Your task to perform on an android device: What's the weather going to be this weekend? Image 0: 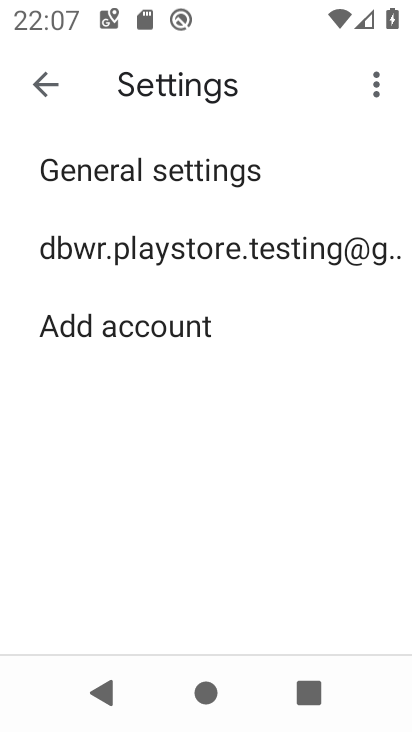
Step 0: press home button
Your task to perform on an android device: What's the weather going to be this weekend? Image 1: 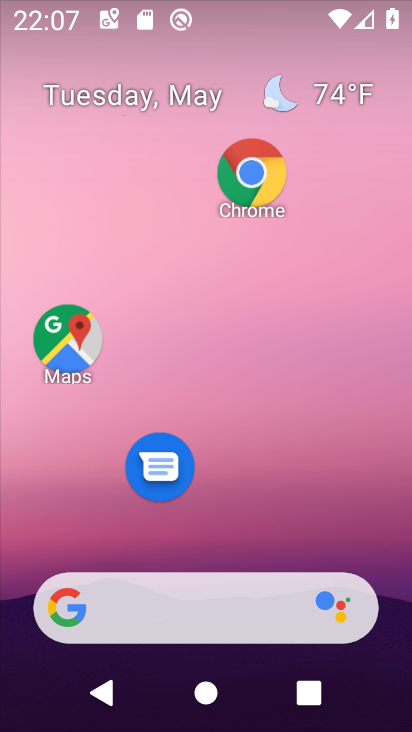
Step 1: drag from (338, 528) to (364, 127)
Your task to perform on an android device: What's the weather going to be this weekend? Image 2: 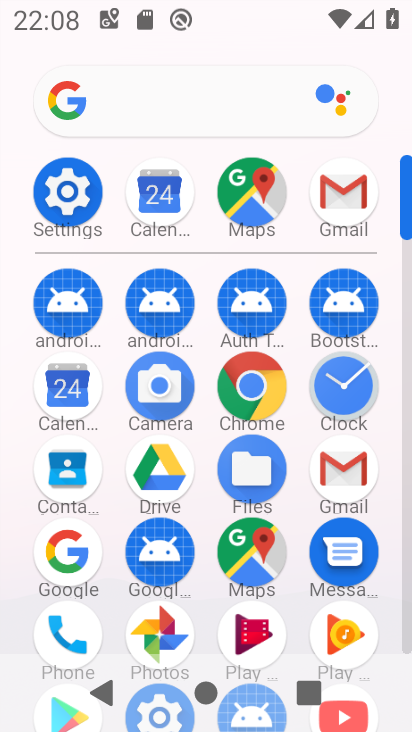
Step 2: click (241, 399)
Your task to perform on an android device: What's the weather going to be this weekend? Image 3: 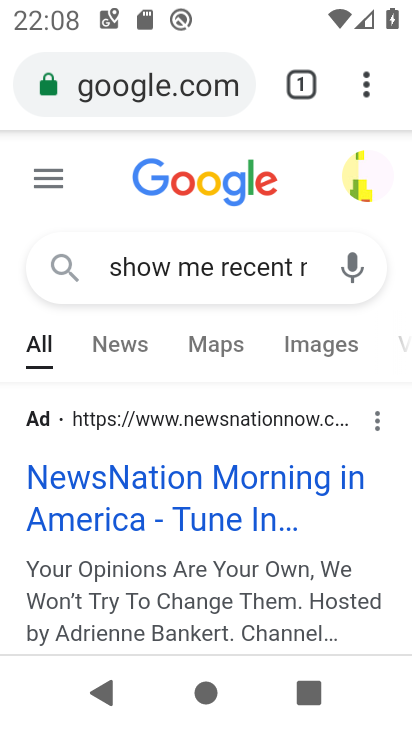
Step 3: press home button
Your task to perform on an android device: What's the weather going to be this weekend? Image 4: 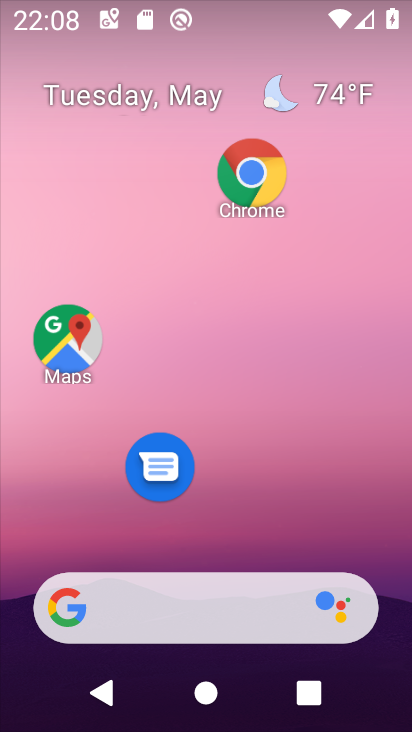
Step 4: click (268, 172)
Your task to perform on an android device: What's the weather going to be this weekend? Image 5: 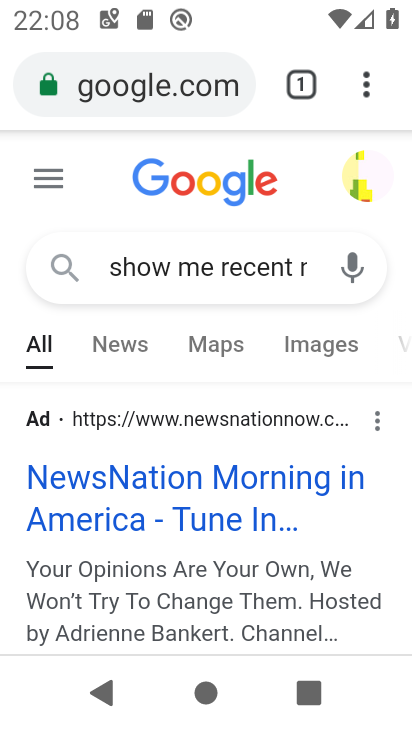
Step 5: click (148, 93)
Your task to perform on an android device: What's the weather going to be this weekend? Image 6: 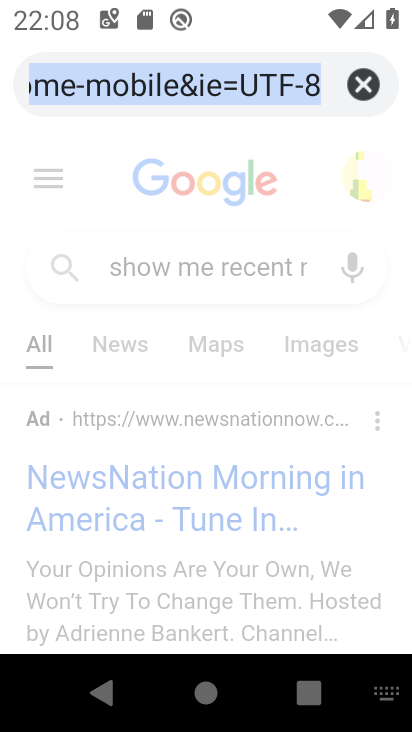
Step 6: click (350, 85)
Your task to perform on an android device: What's the weather going to be this weekend? Image 7: 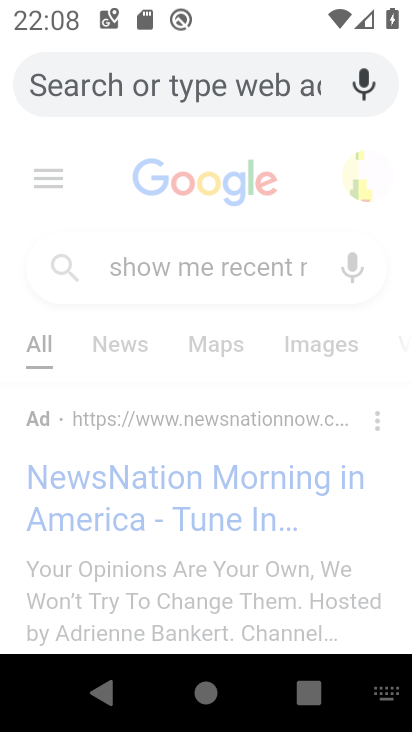
Step 7: click (179, 87)
Your task to perform on an android device: What's the weather going to be this weekend? Image 8: 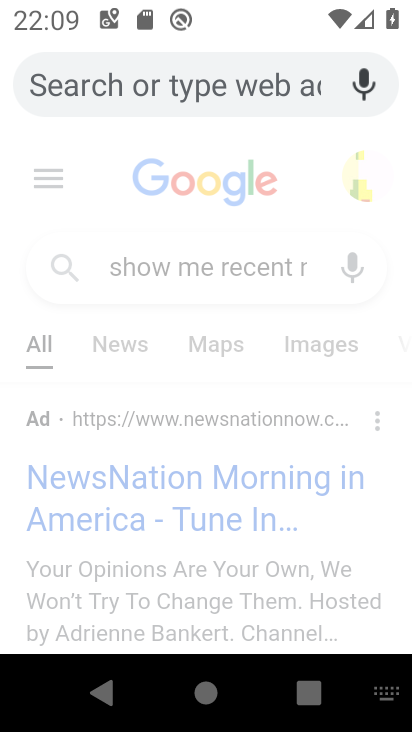
Step 8: type "what's the weather going to be this weekend "
Your task to perform on an android device: What's the weather going to be this weekend? Image 9: 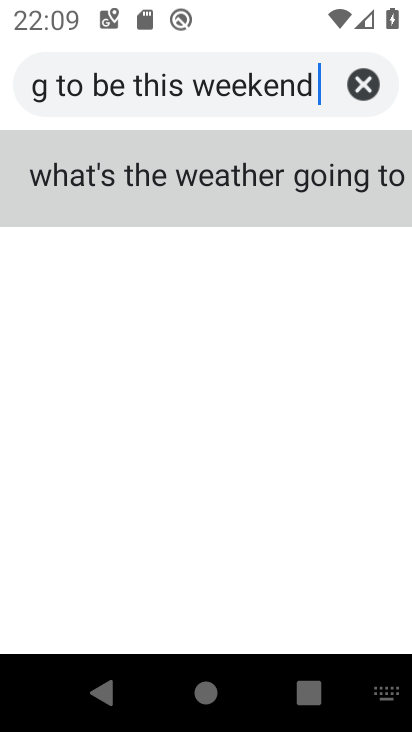
Step 9: click (281, 210)
Your task to perform on an android device: What's the weather going to be this weekend? Image 10: 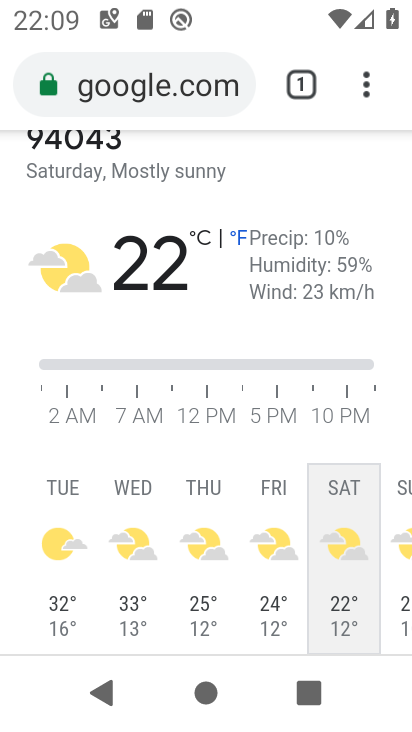
Step 10: task complete